Your task to perform on an android device: toggle sleep mode Image 0: 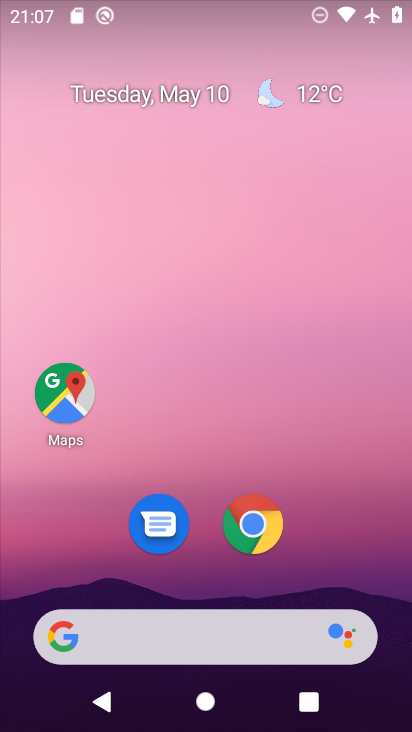
Step 0: drag from (316, 498) to (231, 22)
Your task to perform on an android device: toggle sleep mode Image 1: 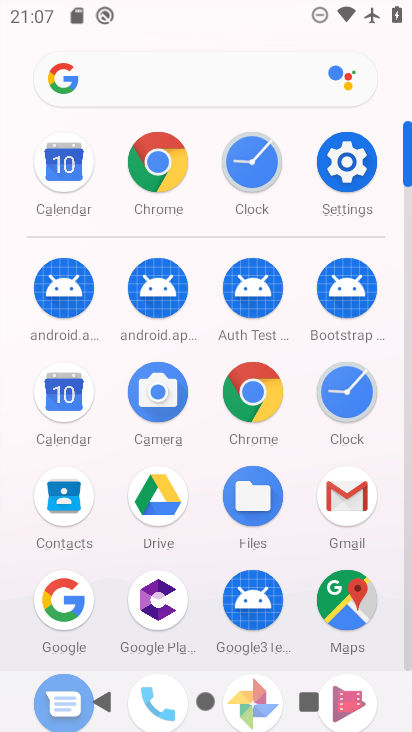
Step 1: click (358, 164)
Your task to perform on an android device: toggle sleep mode Image 2: 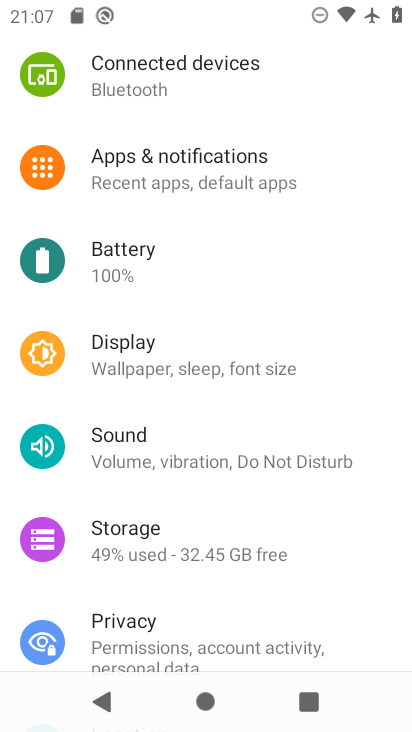
Step 2: click (207, 359)
Your task to perform on an android device: toggle sleep mode Image 3: 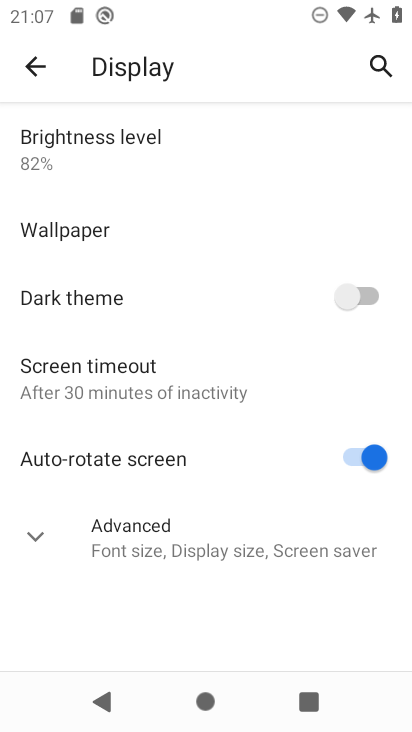
Step 3: click (39, 534)
Your task to perform on an android device: toggle sleep mode Image 4: 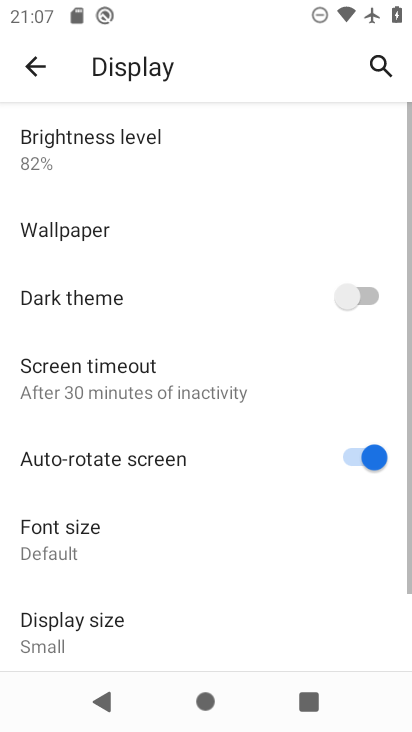
Step 4: task complete